Your task to perform on an android device: Go to ESPN.com Image 0: 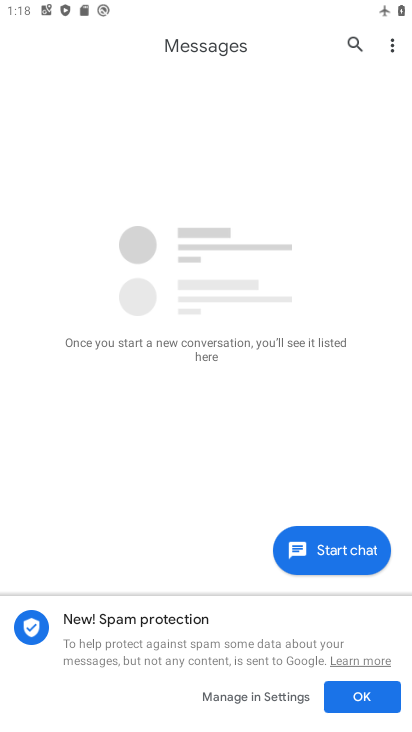
Step 0: press home button
Your task to perform on an android device: Go to ESPN.com Image 1: 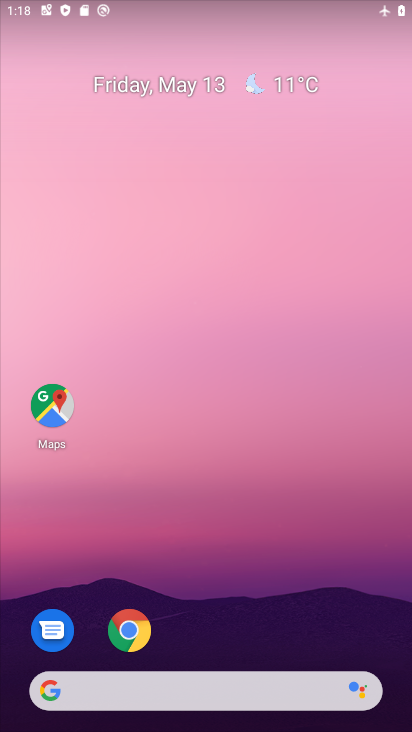
Step 1: click (126, 628)
Your task to perform on an android device: Go to ESPN.com Image 2: 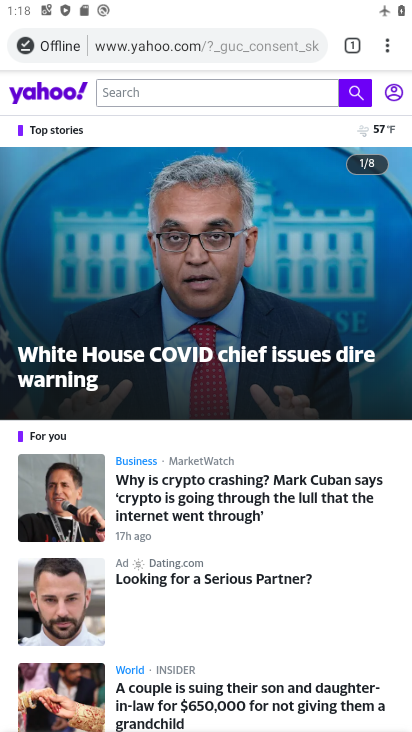
Step 2: click (126, 48)
Your task to perform on an android device: Go to ESPN.com Image 3: 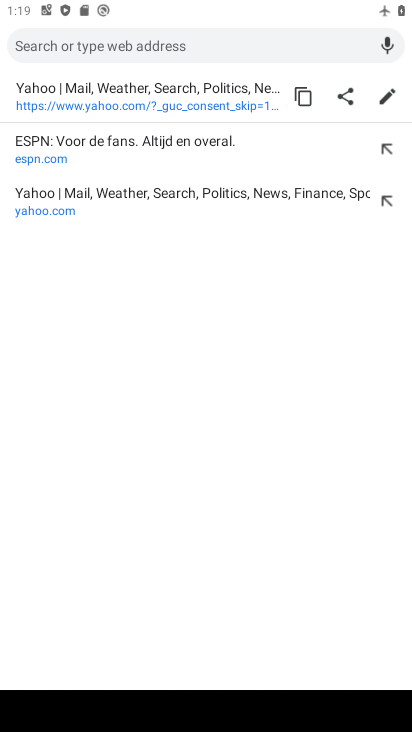
Step 3: click (50, 153)
Your task to perform on an android device: Go to ESPN.com Image 4: 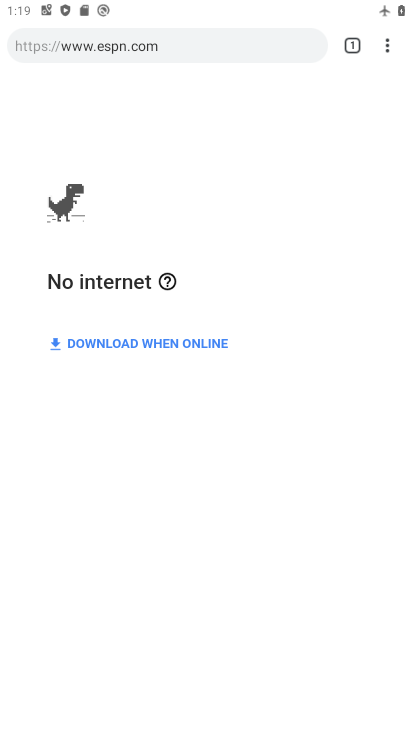
Step 4: task complete